Your task to perform on an android device: Go to location settings Image 0: 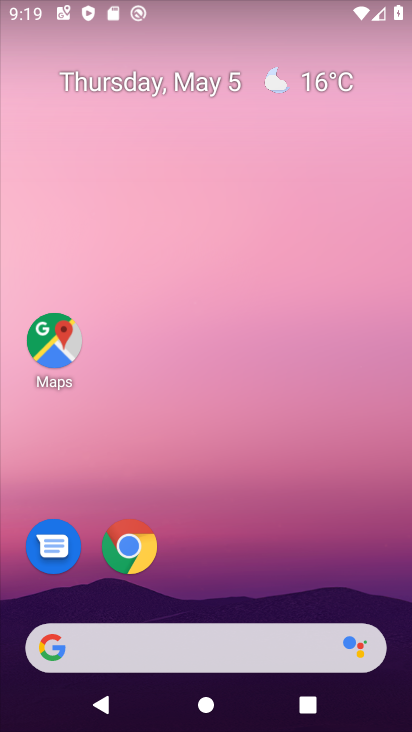
Step 0: drag from (236, 587) to (240, 193)
Your task to perform on an android device: Go to location settings Image 1: 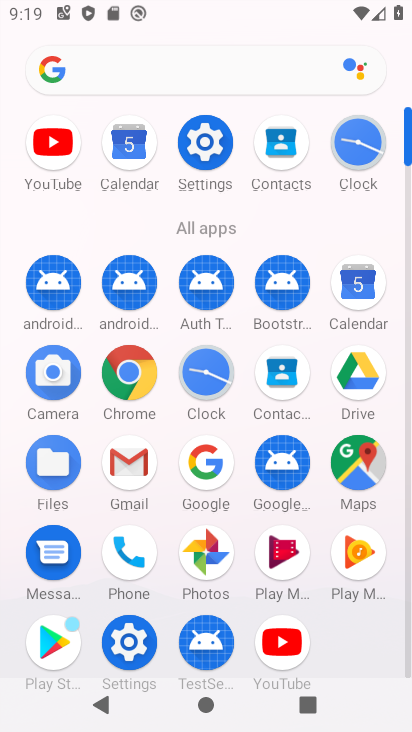
Step 1: click (136, 645)
Your task to perform on an android device: Go to location settings Image 2: 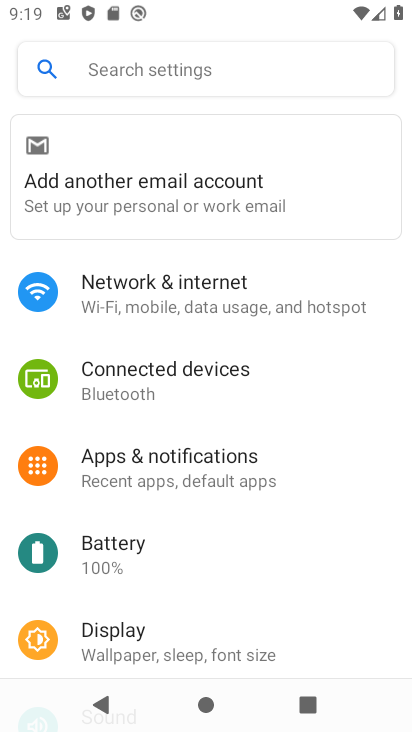
Step 2: drag from (135, 610) to (113, 520)
Your task to perform on an android device: Go to location settings Image 3: 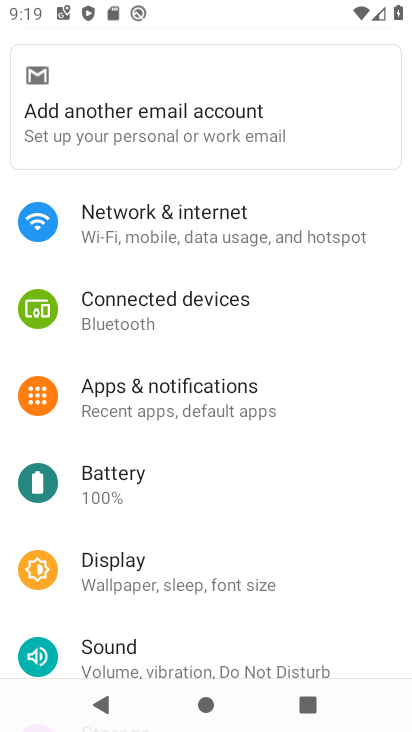
Step 3: drag from (110, 584) to (94, 481)
Your task to perform on an android device: Go to location settings Image 4: 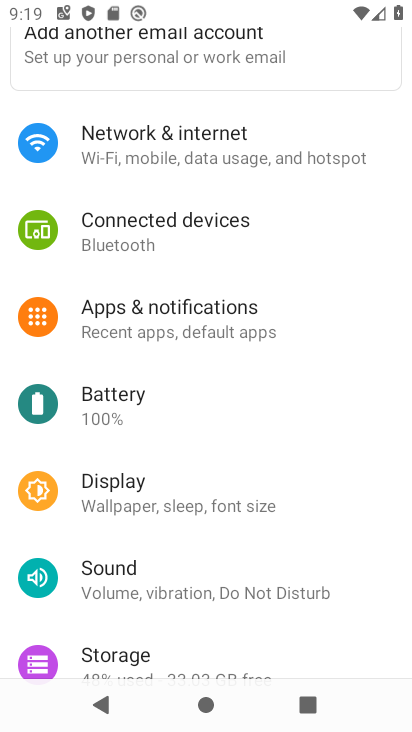
Step 4: drag from (149, 589) to (126, 465)
Your task to perform on an android device: Go to location settings Image 5: 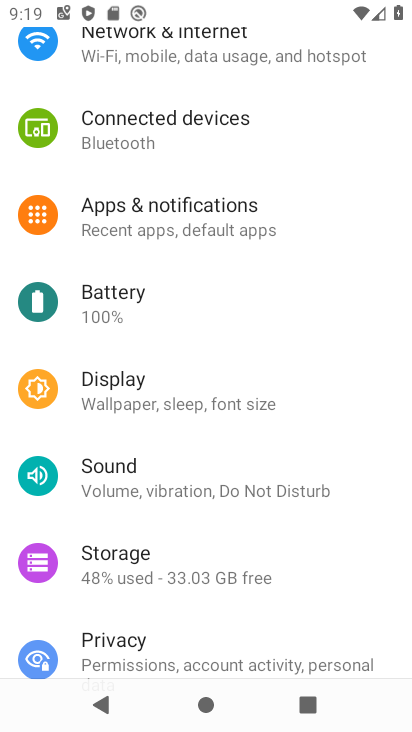
Step 5: drag from (156, 605) to (137, 500)
Your task to perform on an android device: Go to location settings Image 6: 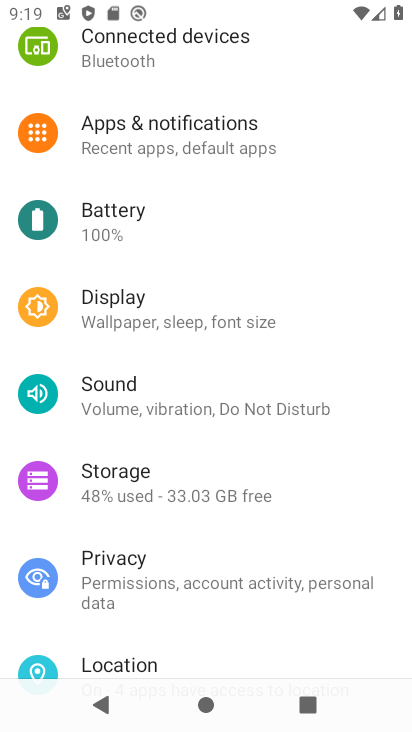
Step 6: drag from (121, 619) to (123, 493)
Your task to perform on an android device: Go to location settings Image 7: 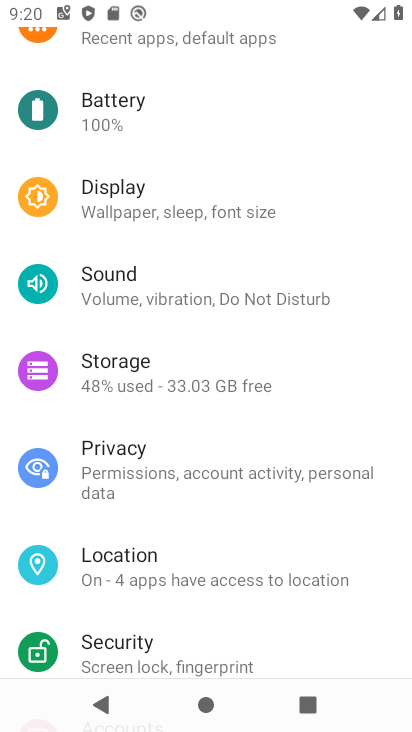
Step 7: click (139, 560)
Your task to perform on an android device: Go to location settings Image 8: 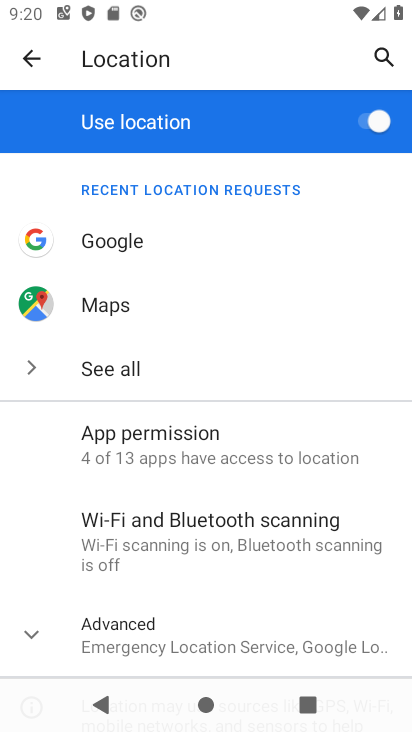
Step 8: task complete